Your task to perform on an android device: Go to Yahoo.com Image 0: 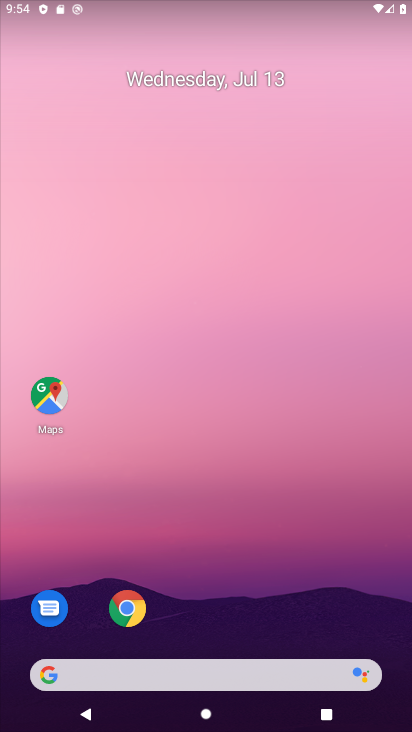
Step 0: click (129, 609)
Your task to perform on an android device: Go to Yahoo.com Image 1: 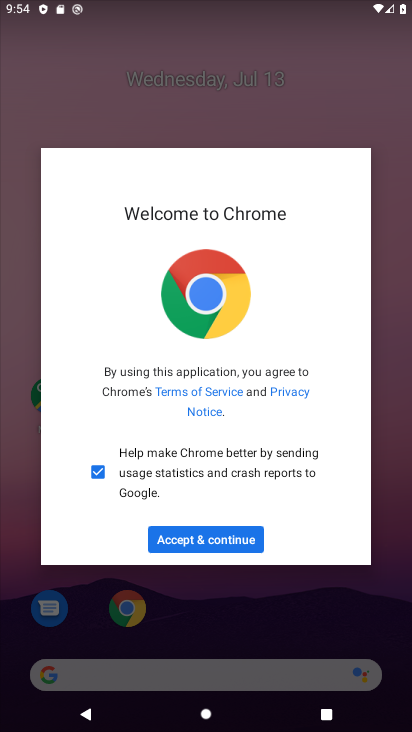
Step 1: click (215, 544)
Your task to perform on an android device: Go to Yahoo.com Image 2: 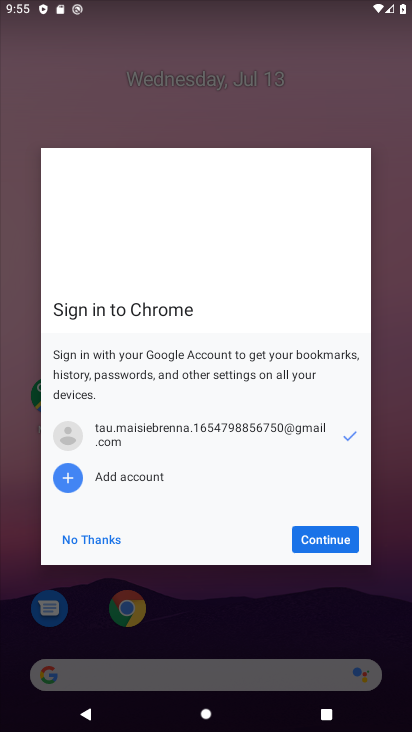
Step 2: click (309, 536)
Your task to perform on an android device: Go to Yahoo.com Image 3: 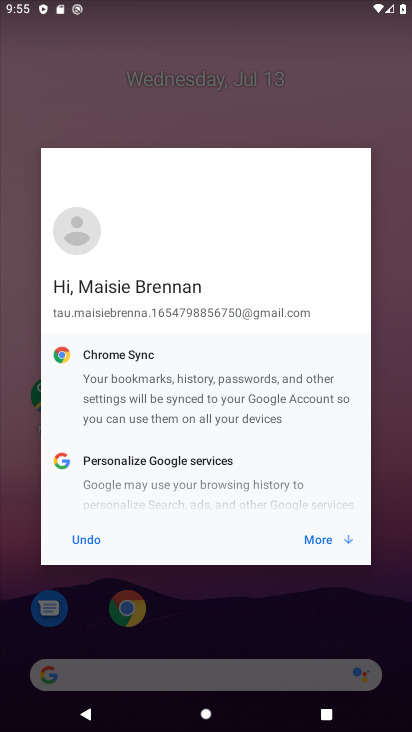
Step 3: click (316, 541)
Your task to perform on an android device: Go to Yahoo.com Image 4: 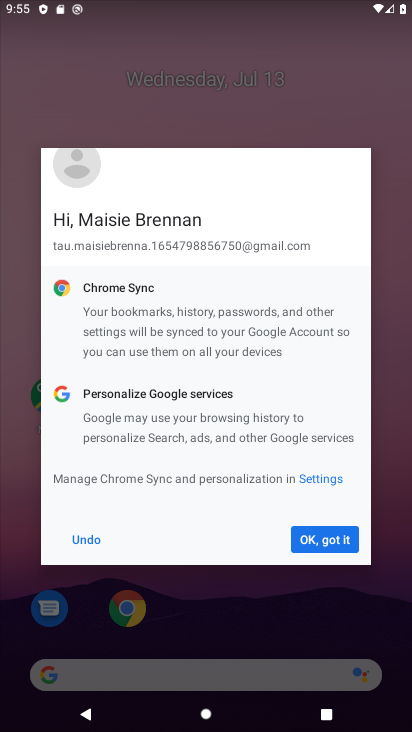
Step 4: click (324, 540)
Your task to perform on an android device: Go to Yahoo.com Image 5: 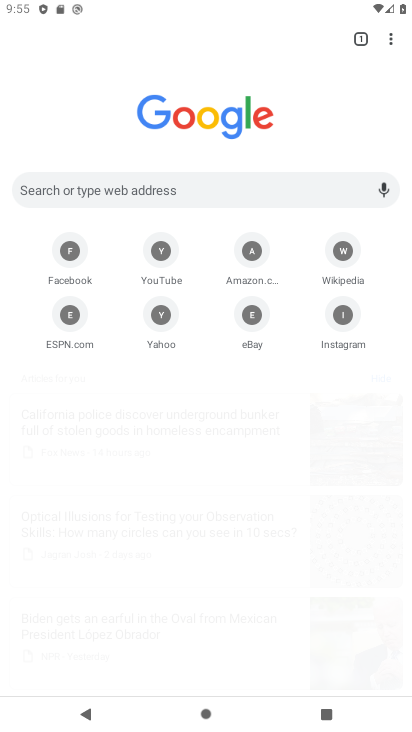
Step 5: click (165, 308)
Your task to perform on an android device: Go to Yahoo.com Image 6: 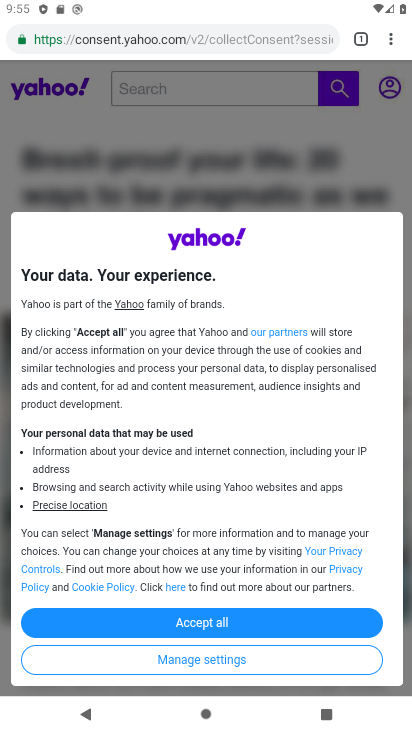
Step 6: click (230, 616)
Your task to perform on an android device: Go to Yahoo.com Image 7: 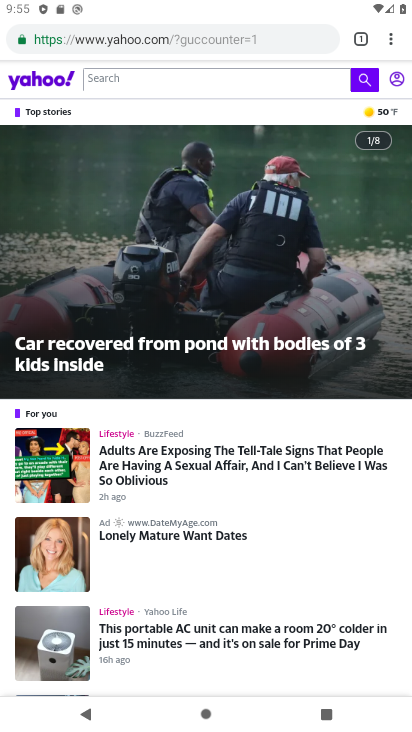
Step 7: task complete